Your task to perform on an android device: Is it going to rain tomorrow? Image 0: 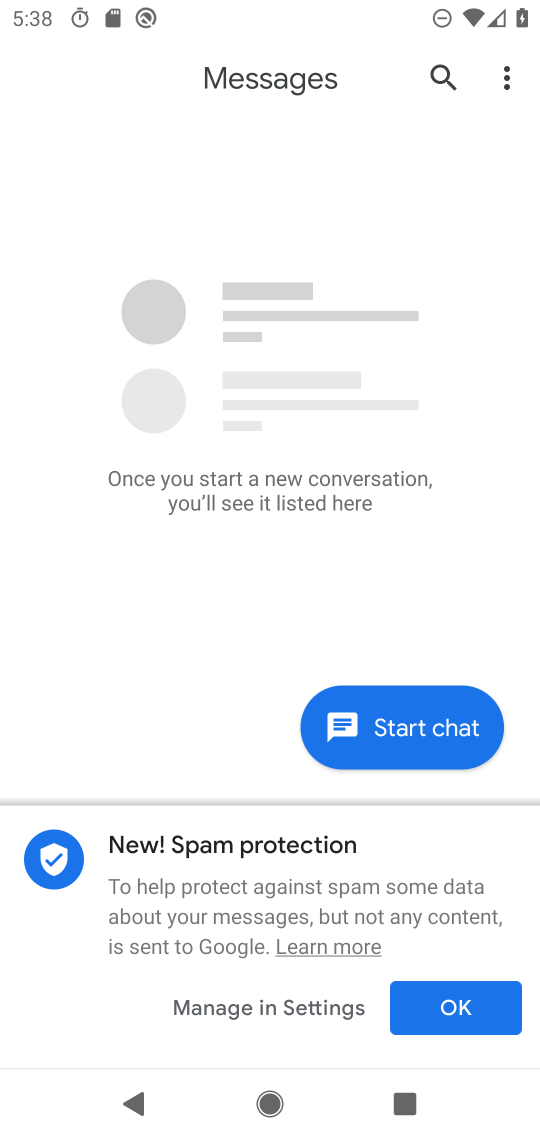
Step 0: press home button
Your task to perform on an android device: Is it going to rain tomorrow? Image 1: 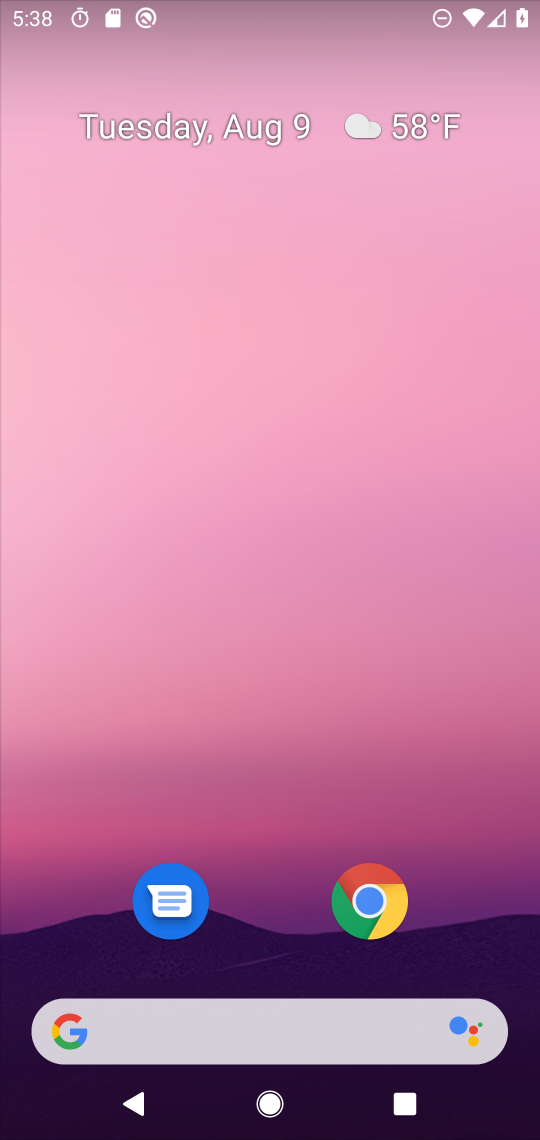
Step 1: drag from (254, 893) to (232, 49)
Your task to perform on an android device: Is it going to rain tomorrow? Image 2: 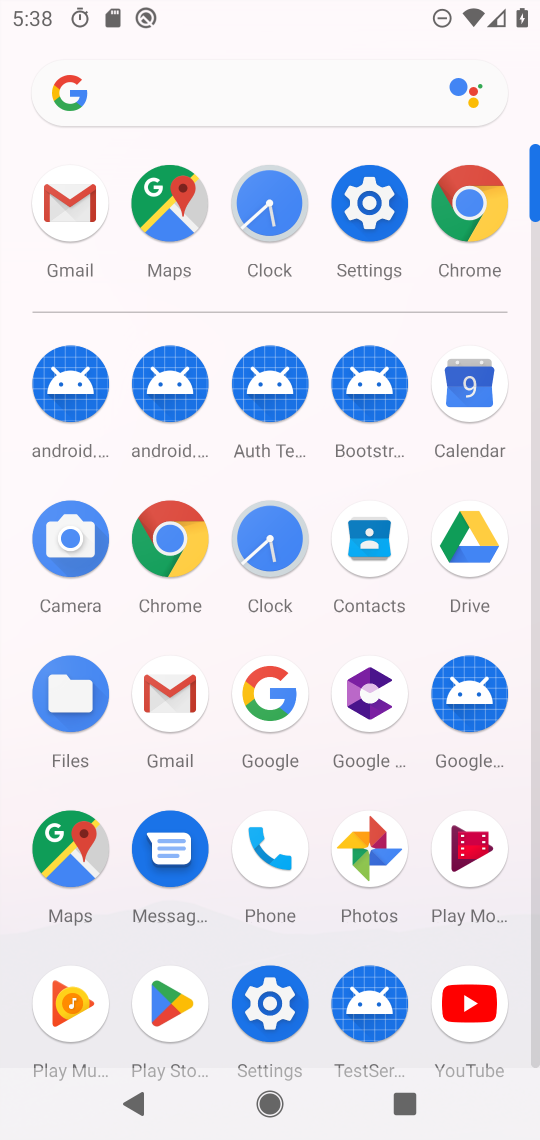
Step 2: click (173, 540)
Your task to perform on an android device: Is it going to rain tomorrow? Image 3: 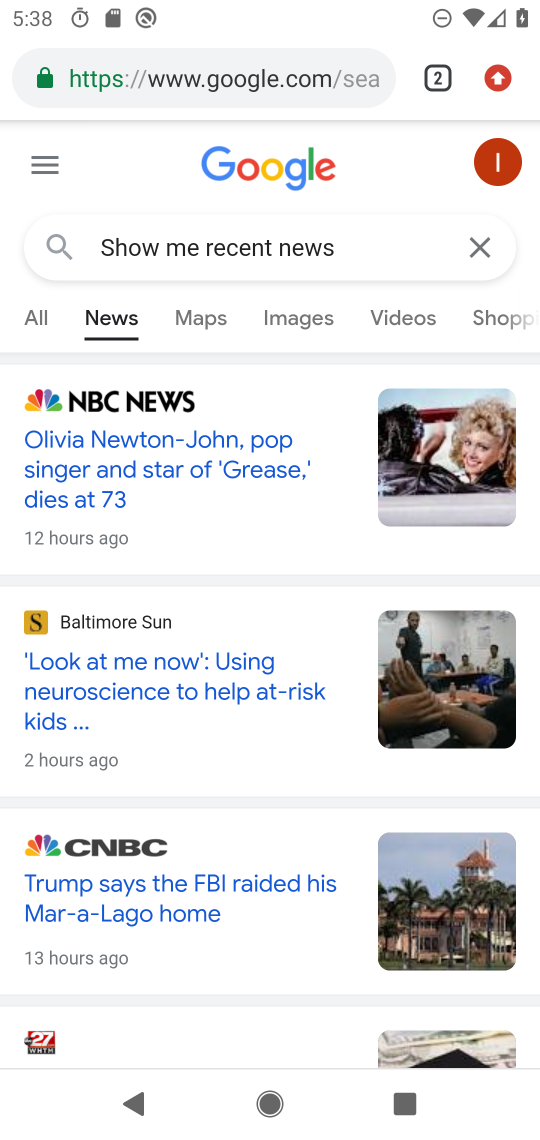
Step 3: click (477, 237)
Your task to perform on an android device: Is it going to rain tomorrow? Image 4: 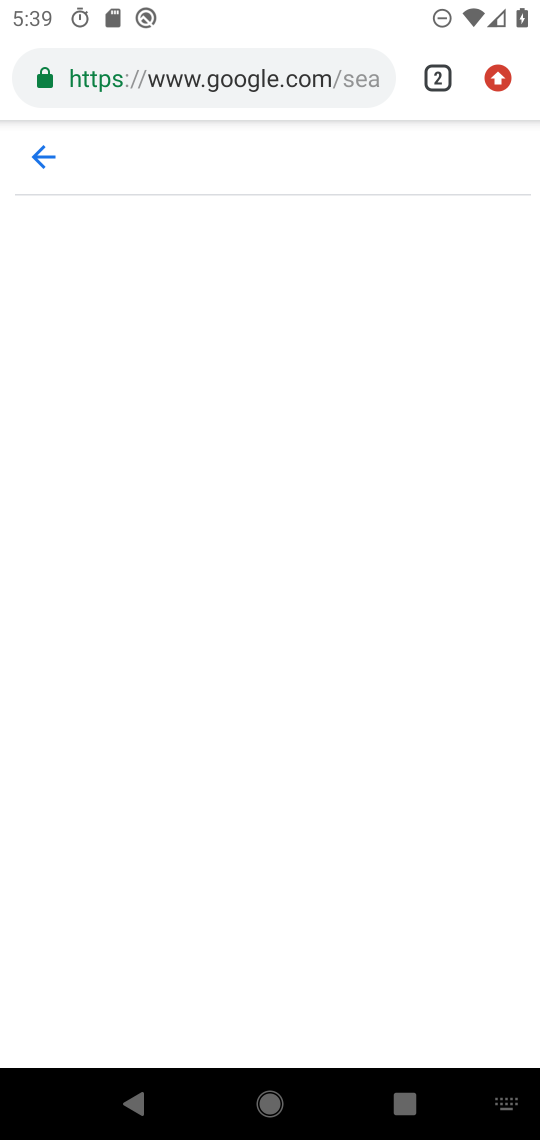
Step 4: type "Is it going to rain tomorrow?"
Your task to perform on an android device: Is it going to rain tomorrow? Image 5: 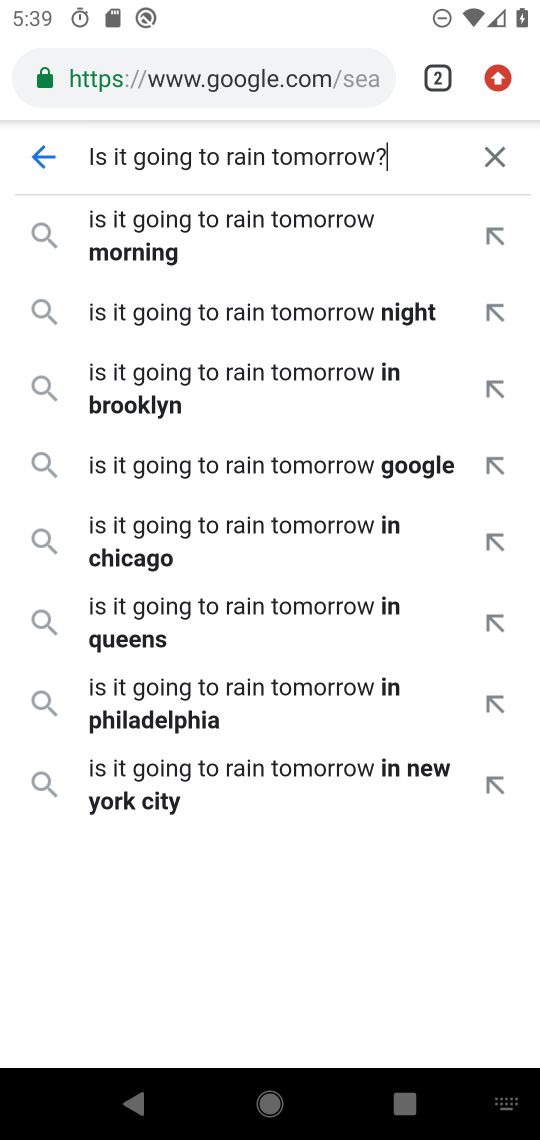
Step 5: click (157, 209)
Your task to perform on an android device: Is it going to rain tomorrow? Image 6: 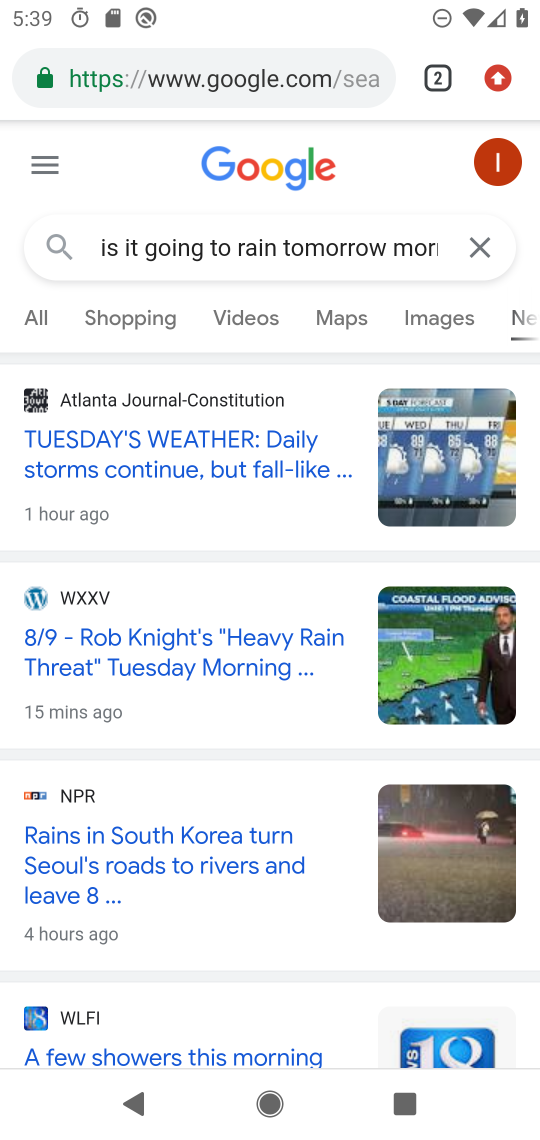
Step 6: click (112, 319)
Your task to perform on an android device: Is it going to rain tomorrow? Image 7: 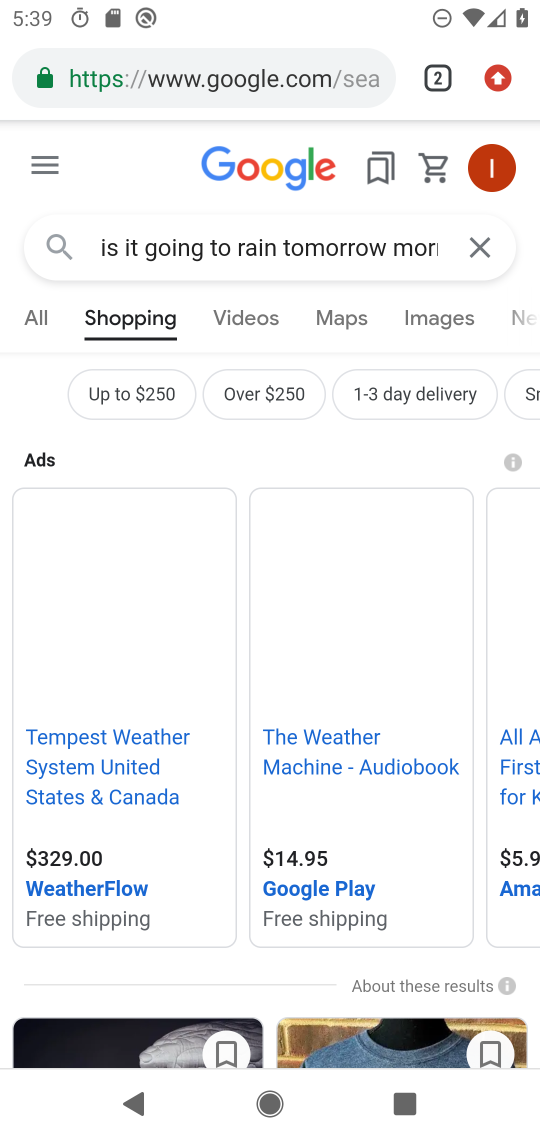
Step 7: click (46, 315)
Your task to perform on an android device: Is it going to rain tomorrow? Image 8: 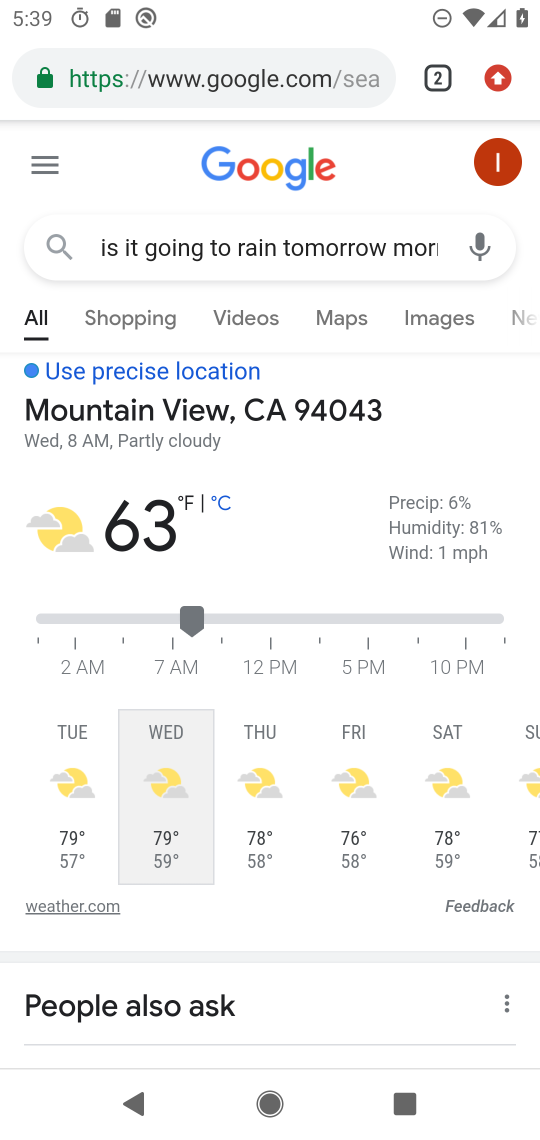
Step 8: task complete